Your task to perform on an android device: Go to wifi settings Image 0: 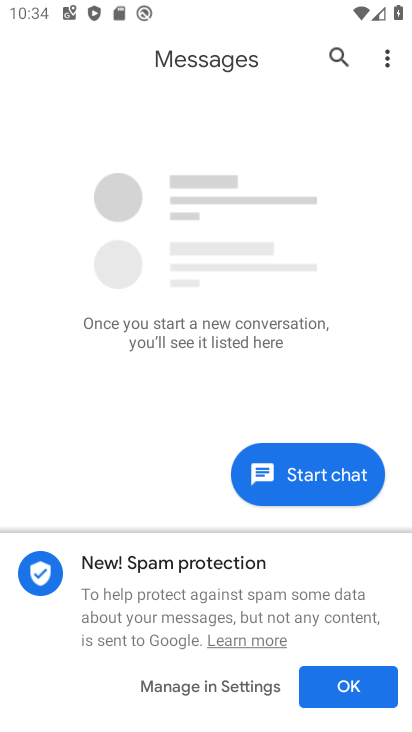
Step 0: press home button
Your task to perform on an android device: Go to wifi settings Image 1: 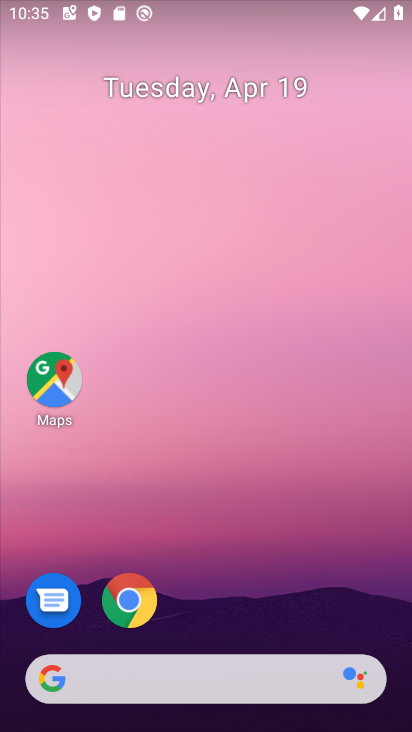
Step 1: drag from (237, 631) to (398, 15)
Your task to perform on an android device: Go to wifi settings Image 2: 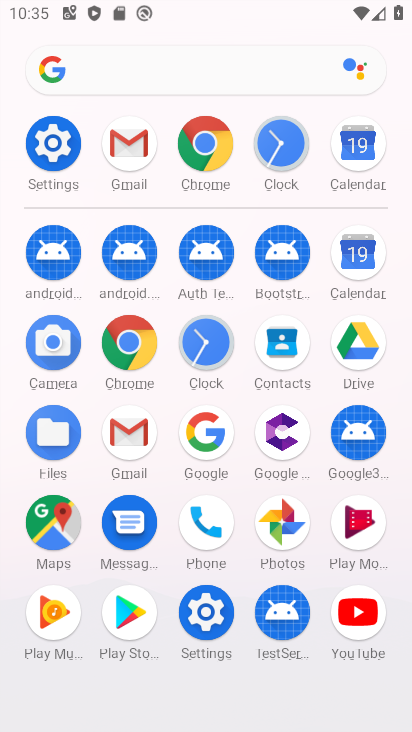
Step 2: click (45, 160)
Your task to perform on an android device: Go to wifi settings Image 3: 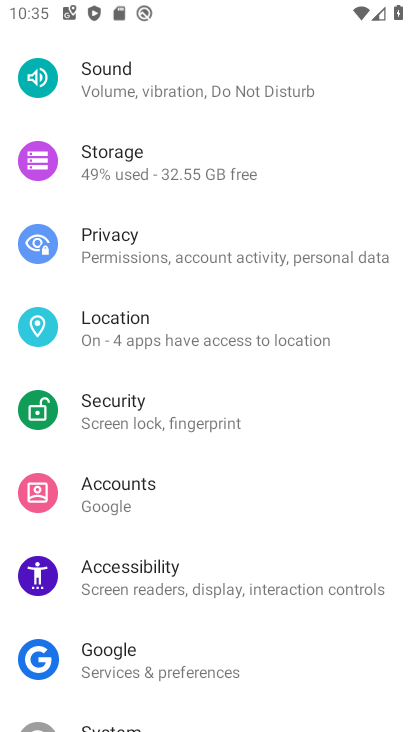
Step 3: drag from (248, 204) to (235, 714)
Your task to perform on an android device: Go to wifi settings Image 4: 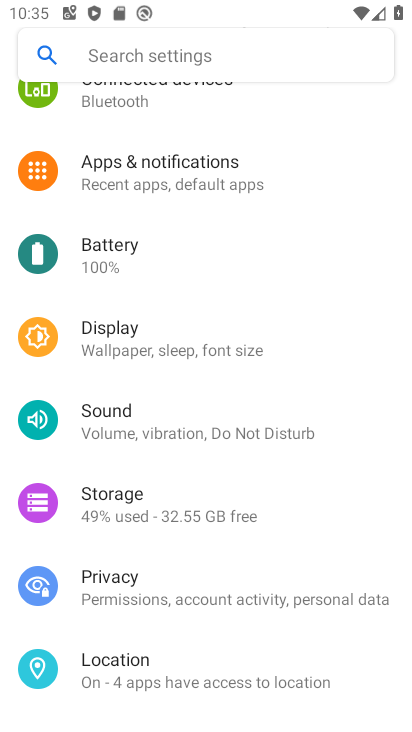
Step 4: drag from (181, 231) to (186, 697)
Your task to perform on an android device: Go to wifi settings Image 5: 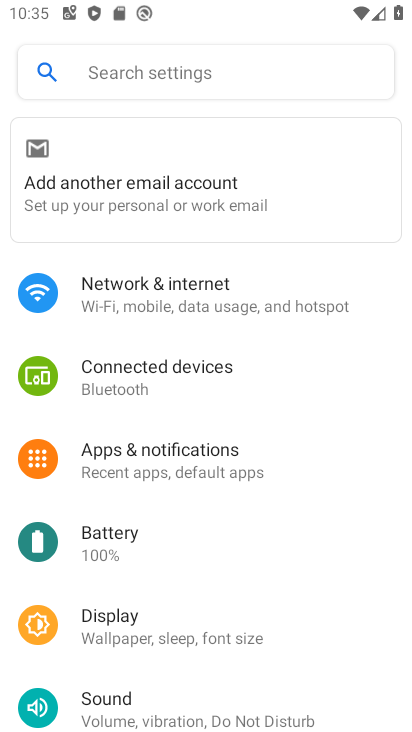
Step 5: click (199, 304)
Your task to perform on an android device: Go to wifi settings Image 6: 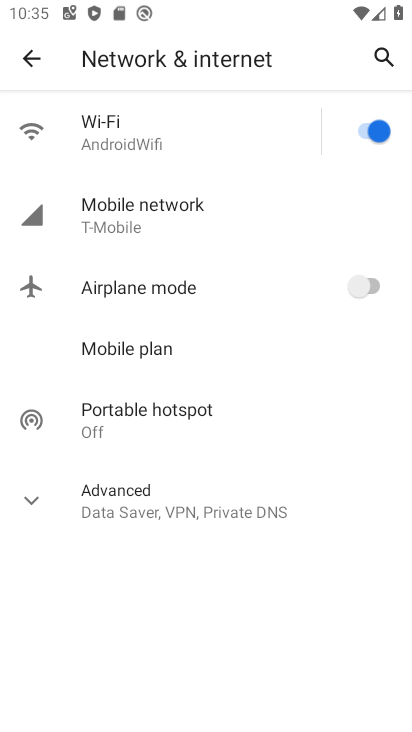
Step 6: click (138, 124)
Your task to perform on an android device: Go to wifi settings Image 7: 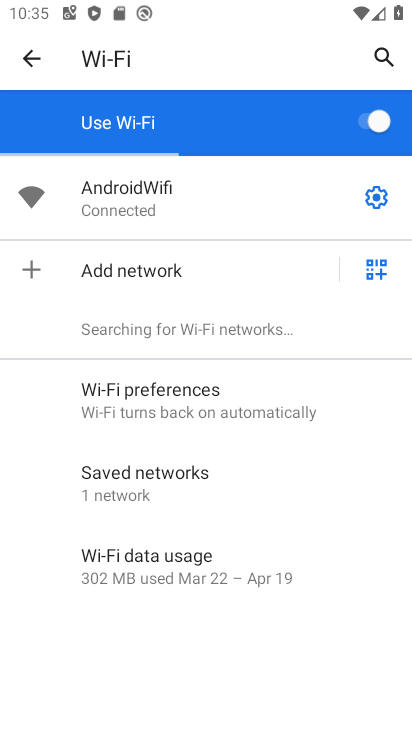
Step 7: task complete